Your task to perform on an android device: change notification settings in the gmail app Image 0: 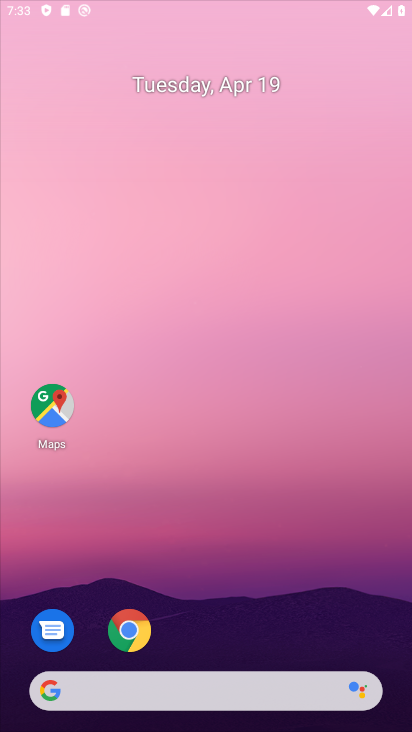
Step 0: drag from (179, 4) to (222, 20)
Your task to perform on an android device: change notification settings in the gmail app Image 1: 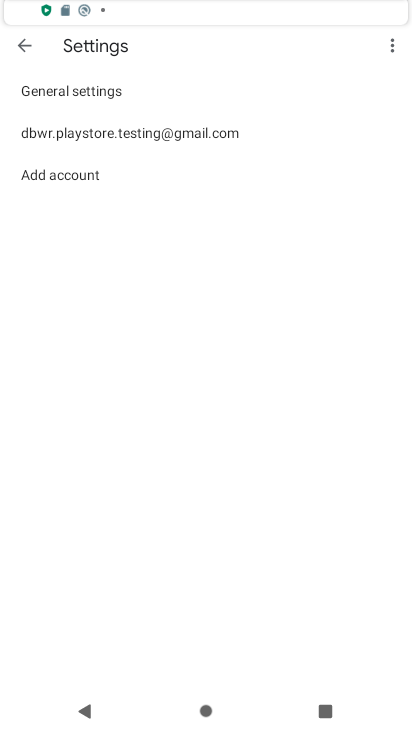
Step 1: press home button
Your task to perform on an android device: change notification settings in the gmail app Image 2: 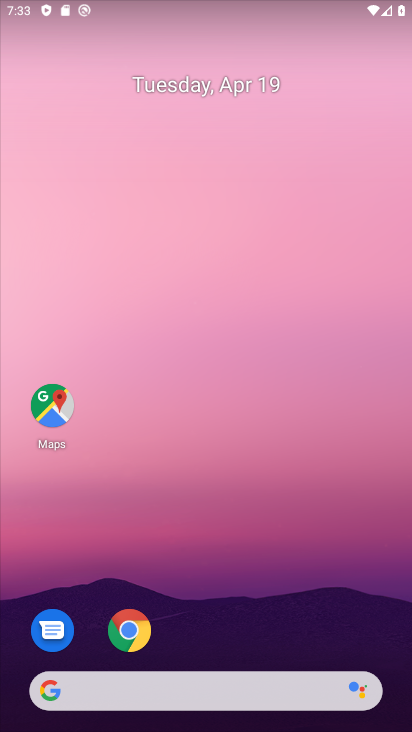
Step 2: drag from (211, 658) to (136, 67)
Your task to perform on an android device: change notification settings in the gmail app Image 3: 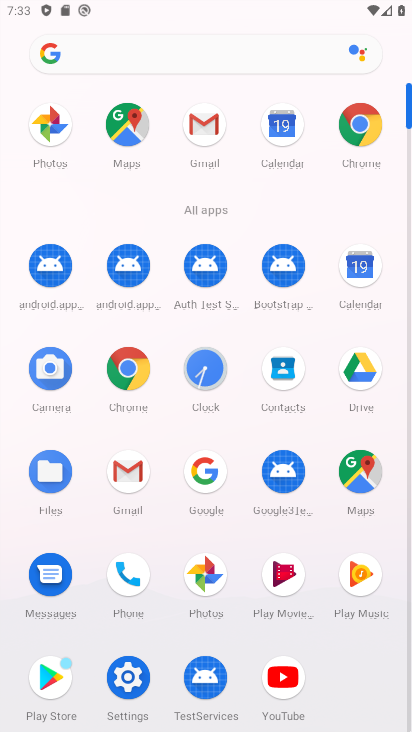
Step 3: click (135, 467)
Your task to perform on an android device: change notification settings in the gmail app Image 4: 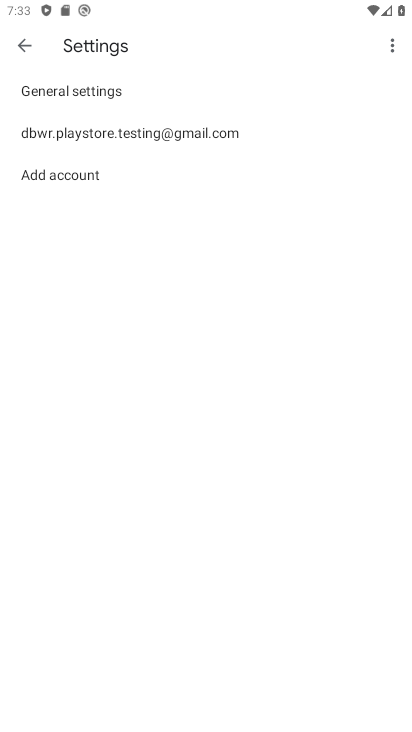
Step 4: click (70, 89)
Your task to perform on an android device: change notification settings in the gmail app Image 5: 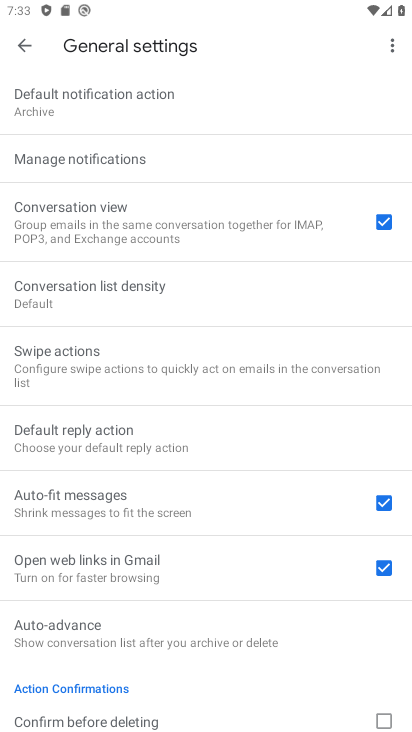
Step 5: click (78, 142)
Your task to perform on an android device: change notification settings in the gmail app Image 6: 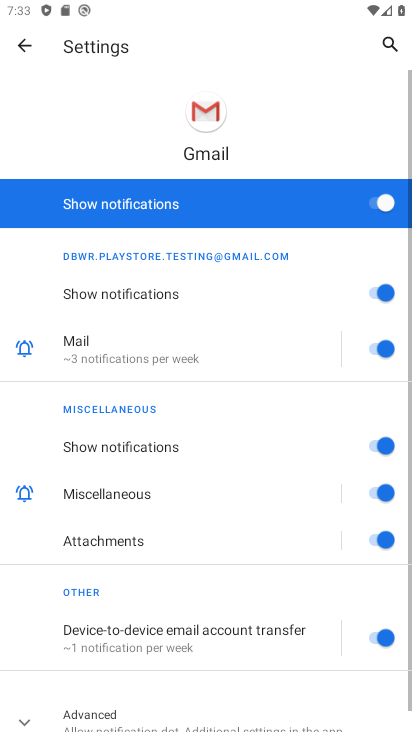
Step 6: click (379, 211)
Your task to perform on an android device: change notification settings in the gmail app Image 7: 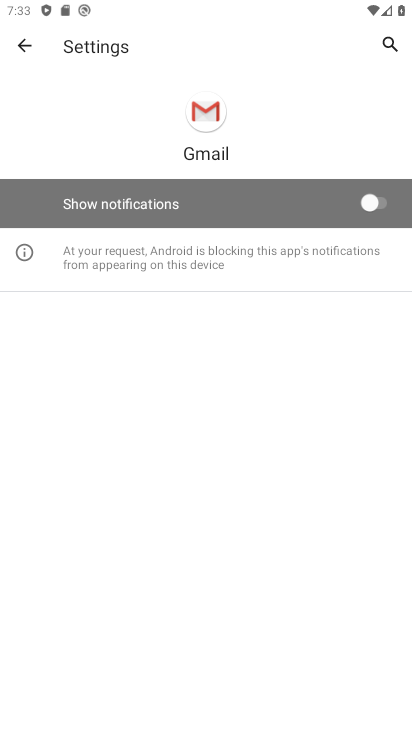
Step 7: task complete